Your task to perform on an android device: change notification settings in the gmail app Image 0: 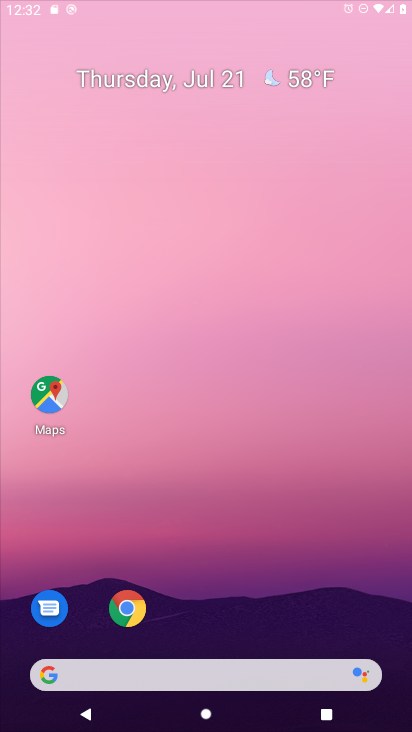
Step 0: press home button
Your task to perform on an android device: change notification settings in the gmail app Image 1: 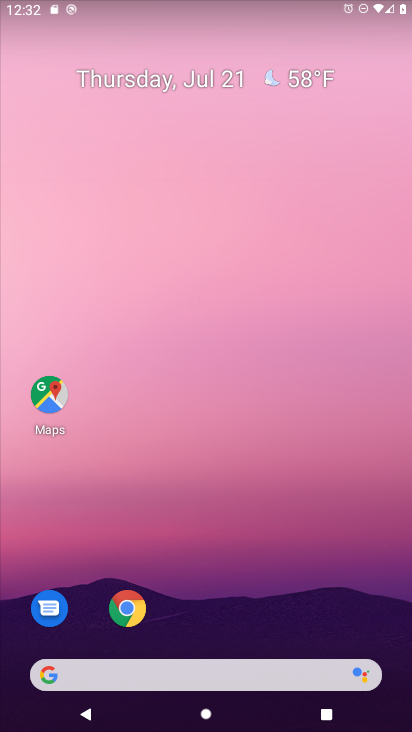
Step 1: drag from (220, 602) to (300, 11)
Your task to perform on an android device: change notification settings in the gmail app Image 2: 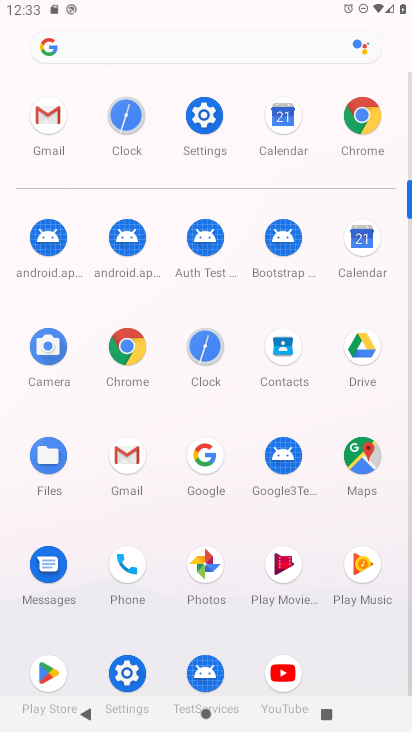
Step 2: click (51, 120)
Your task to perform on an android device: change notification settings in the gmail app Image 3: 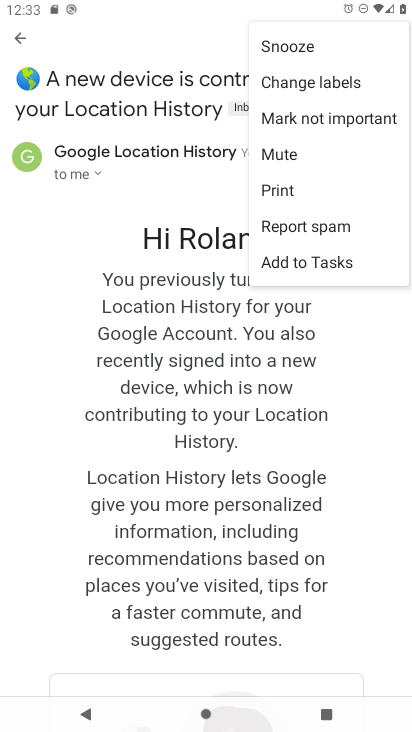
Step 3: click (17, 43)
Your task to perform on an android device: change notification settings in the gmail app Image 4: 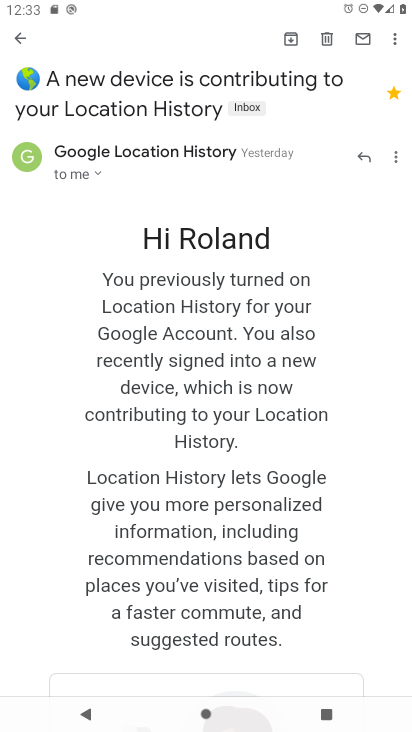
Step 4: click (17, 43)
Your task to perform on an android device: change notification settings in the gmail app Image 5: 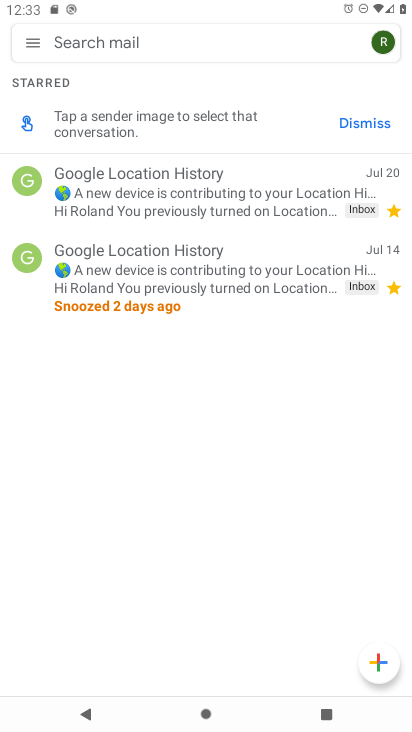
Step 5: click (36, 49)
Your task to perform on an android device: change notification settings in the gmail app Image 6: 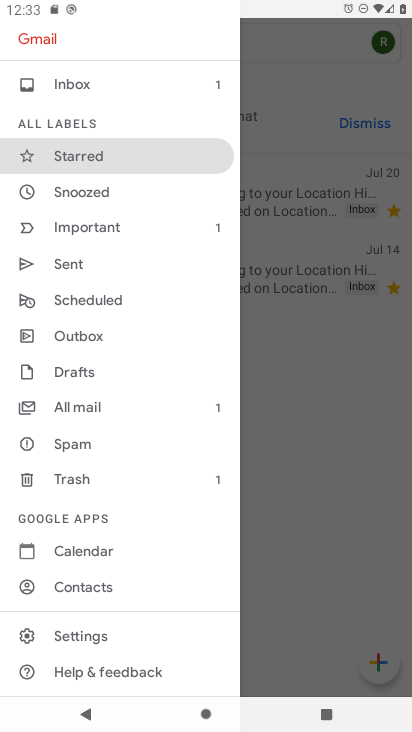
Step 6: click (82, 633)
Your task to perform on an android device: change notification settings in the gmail app Image 7: 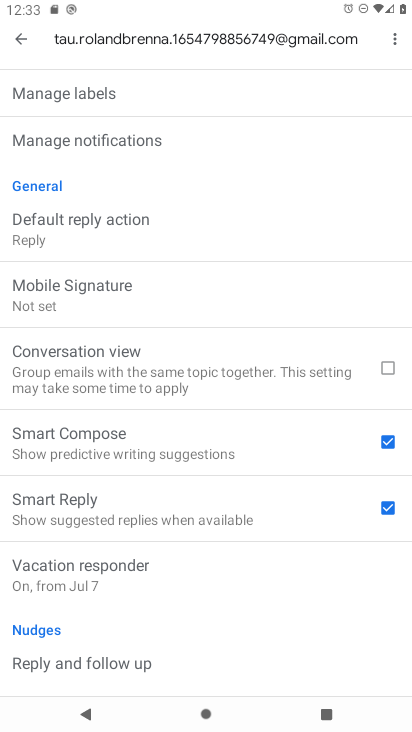
Step 7: click (70, 138)
Your task to perform on an android device: change notification settings in the gmail app Image 8: 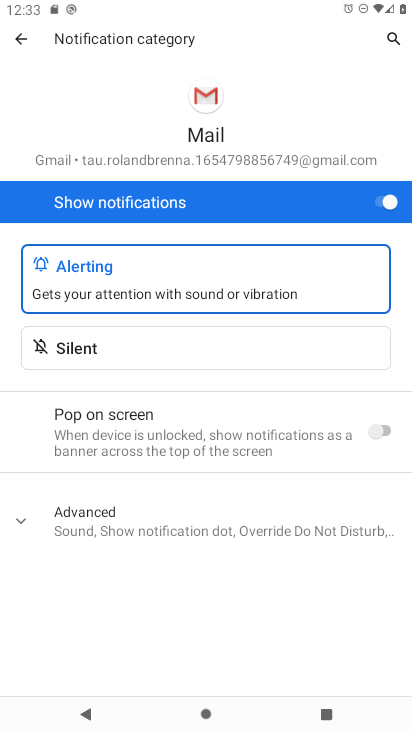
Step 8: click (383, 206)
Your task to perform on an android device: change notification settings in the gmail app Image 9: 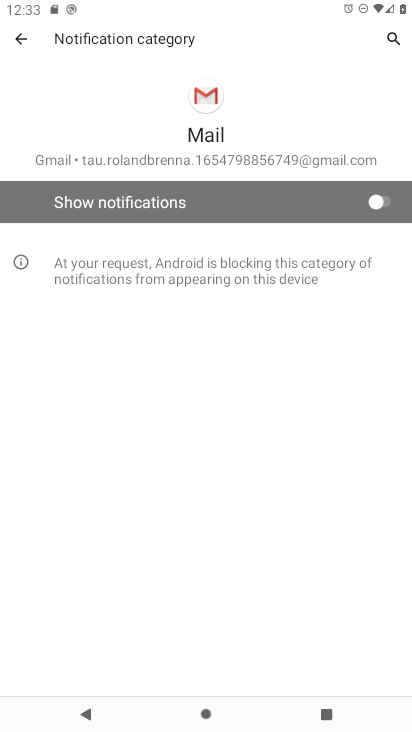
Step 9: task complete